Your task to perform on an android device: all mails in gmail Image 0: 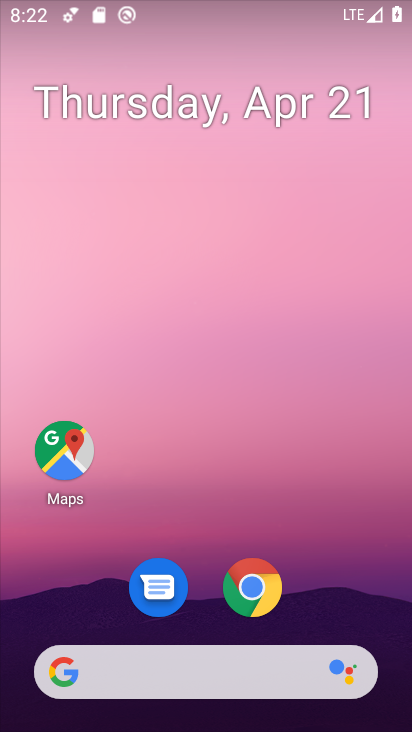
Step 0: drag from (382, 625) to (369, 128)
Your task to perform on an android device: all mails in gmail Image 1: 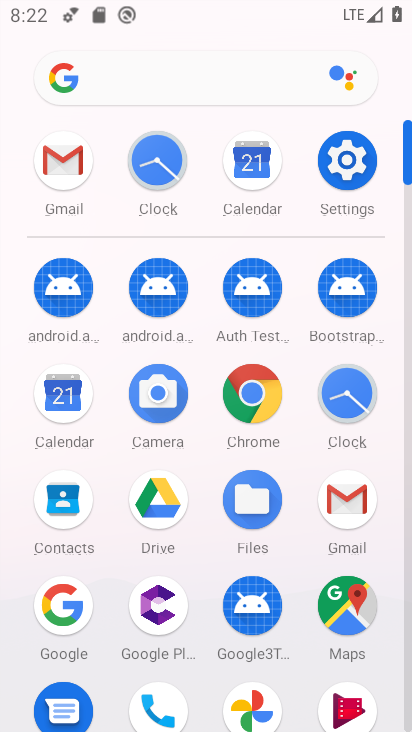
Step 1: click (356, 498)
Your task to perform on an android device: all mails in gmail Image 2: 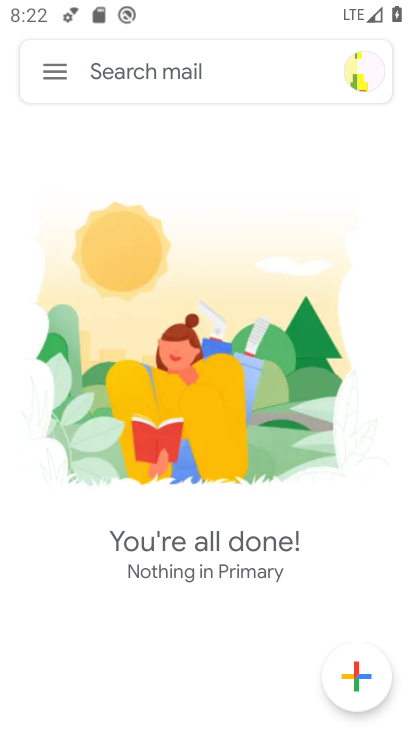
Step 2: click (57, 62)
Your task to perform on an android device: all mails in gmail Image 3: 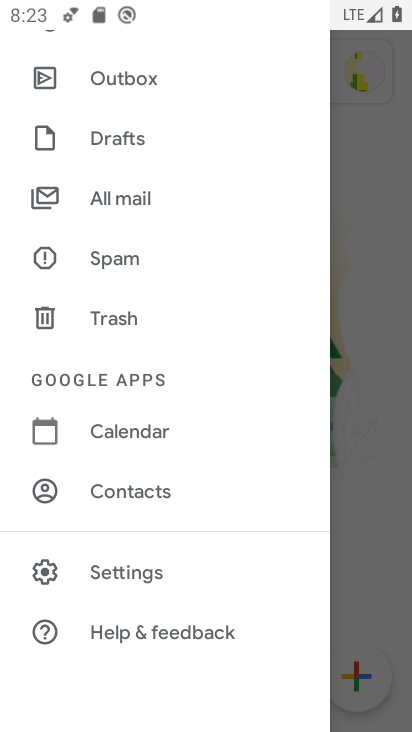
Step 3: click (113, 194)
Your task to perform on an android device: all mails in gmail Image 4: 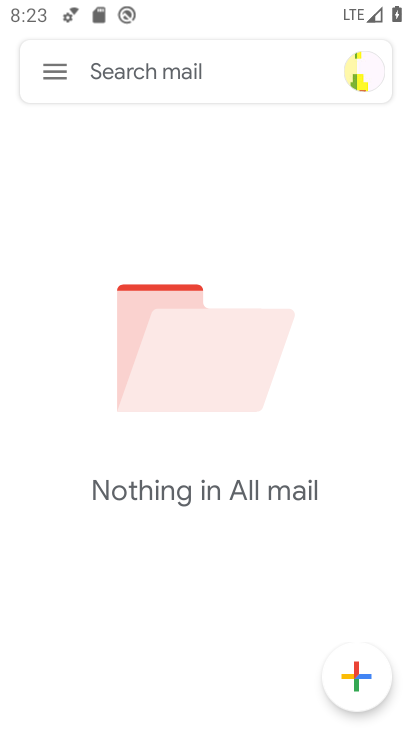
Step 4: task complete